Your task to perform on an android device: delete location history Image 0: 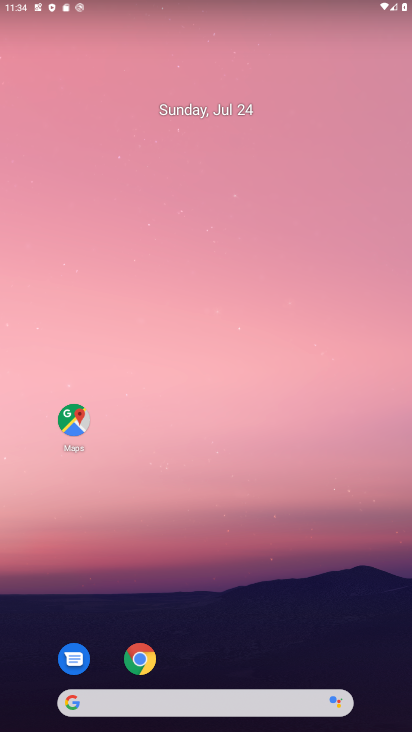
Step 0: drag from (103, 581) to (338, 190)
Your task to perform on an android device: delete location history Image 1: 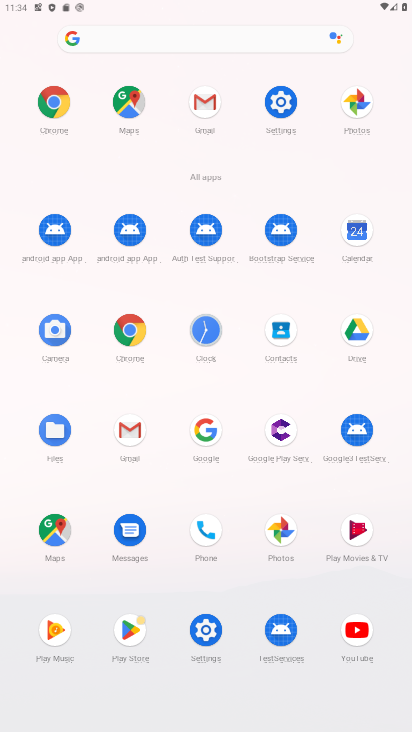
Step 1: click (205, 634)
Your task to perform on an android device: delete location history Image 2: 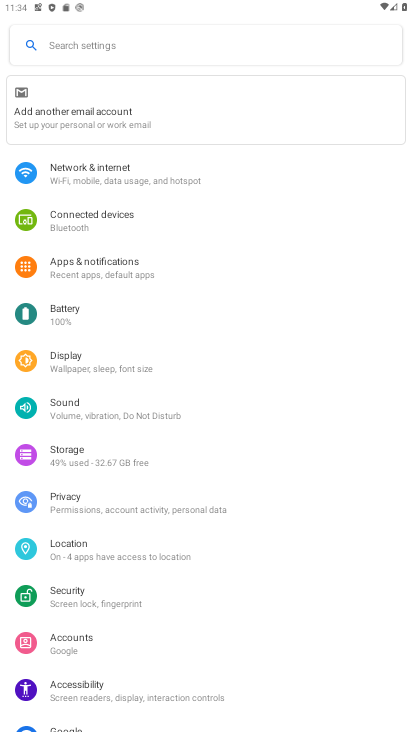
Step 2: click (81, 552)
Your task to perform on an android device: delete location history Image 3: 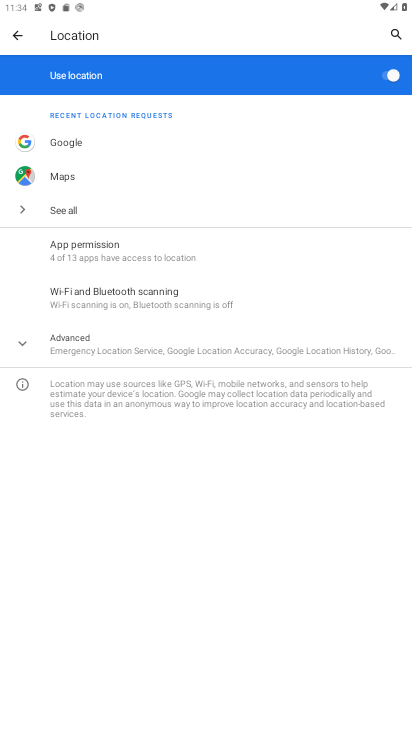
Step 3: click (99, 346)
Your task to perform on an android device: delete location history Image 4: 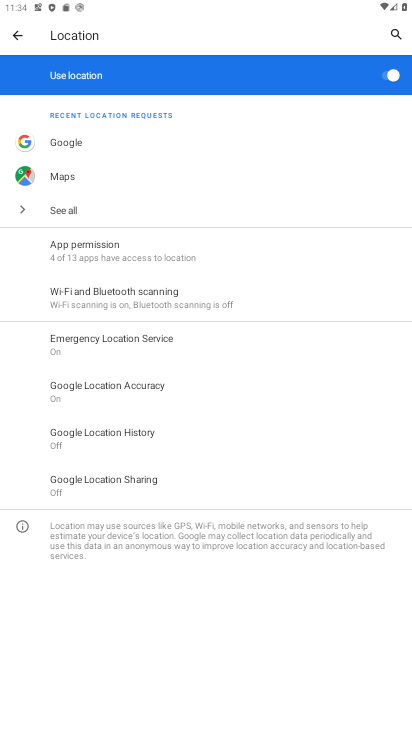
Step 4: task complete